Your task to perform on an android device: Open my contact list Image 0: 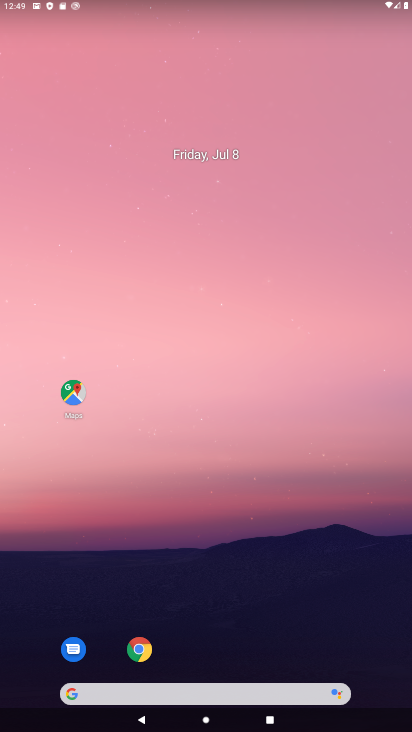
Step 0: drag from (278, 594) to (252, 46)
Your task to perform on an android device: Open my contact list Image 1: 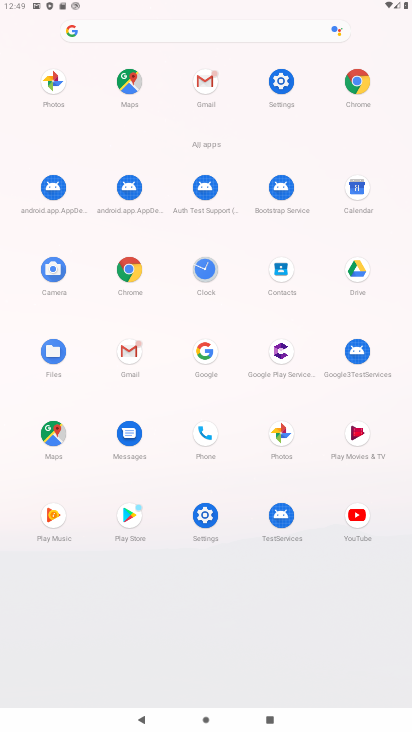
Step 1: click (279, 279)
Your task to perform on an android device: Open my contact list Image 2: 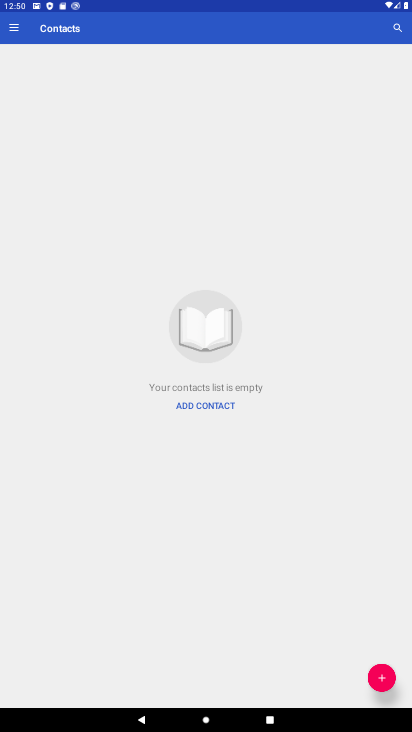
Step 2: task complete